Your task to perform on an android device: move a message to another label in the gmail app Image 0: 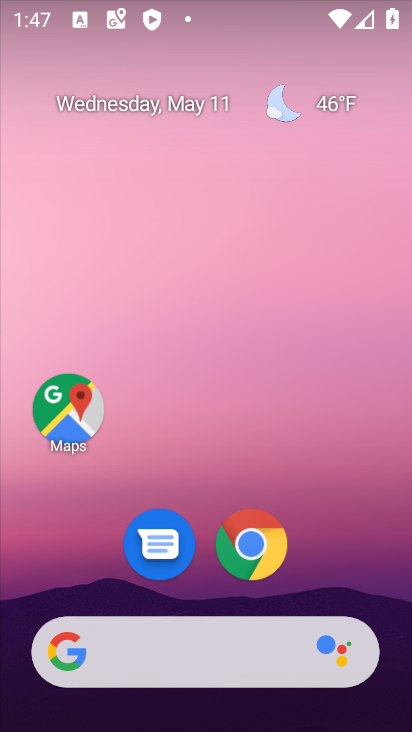
Step 0: drag from (391, 646) to (228, 40)
Your task to perform on an android device: move a message to another label in the gmail app Image 1: 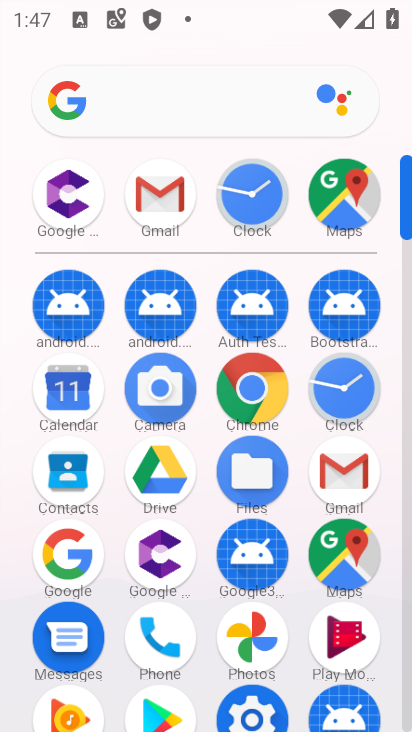
Step 1: click (407, 707)
Your task to perform on an android device: move a message to another label in the gmail app Image 2: 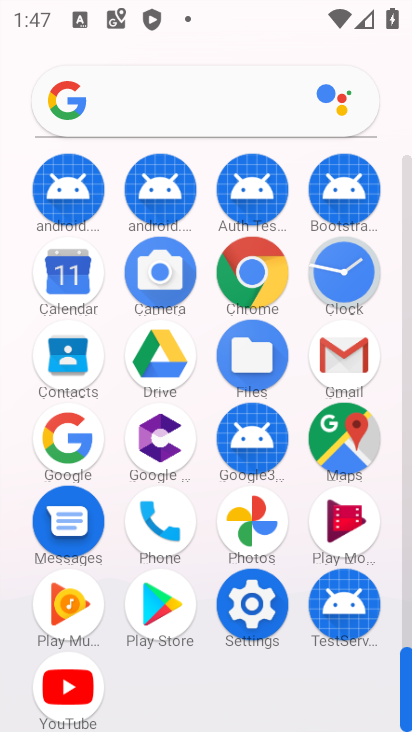
Step 2: click (341, 356)
Your task to perform on an android device: move a message to another label in the gmail app Image 3: 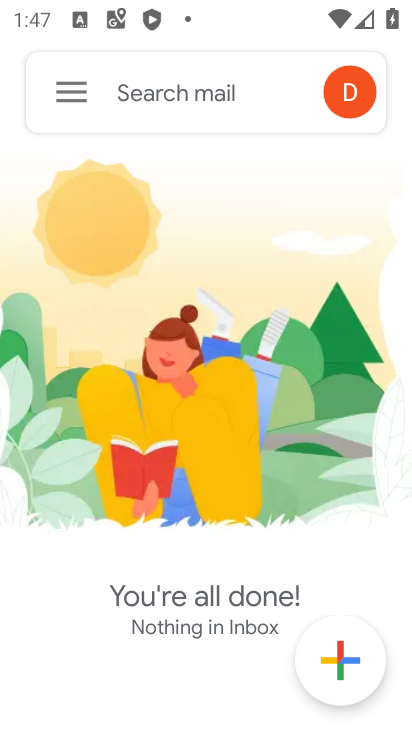
Step 3: click (65, 89)
Your task to perform on an android device: move a message to another label in the gmail app Image 4: 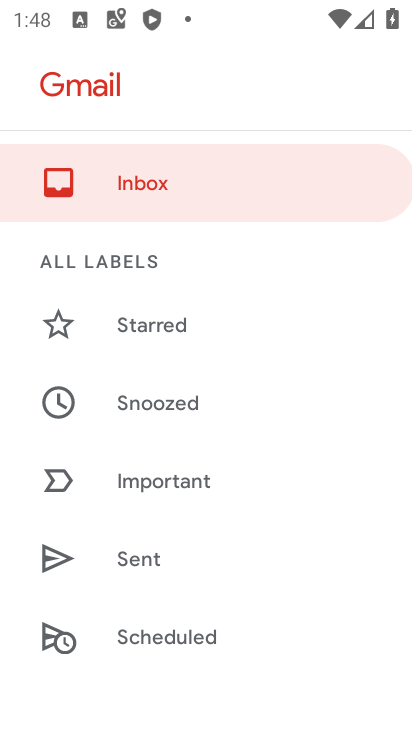
Step 4: drag from (280, 666) to (251, 218)
Your task to perform on an android device: move a message to another label in the gmail app Image 5: 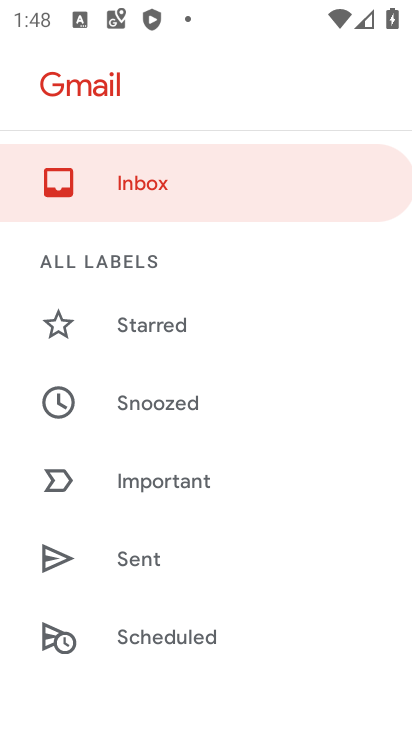
Step 5: drag from (278, 514) to (229, 105)
Your task to perform on an android device: move a message to another label in the gmail app Image 6: 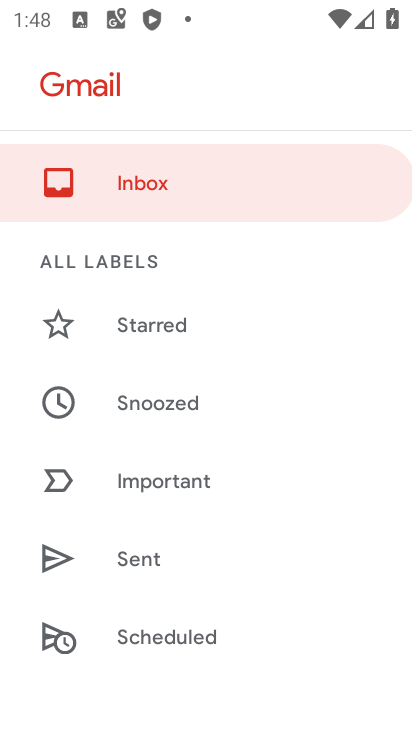
Step 6: drag from (263, 632) to (228, 252)
Your task to perform on an android device: move a message to another label in the gmail app Image 7: 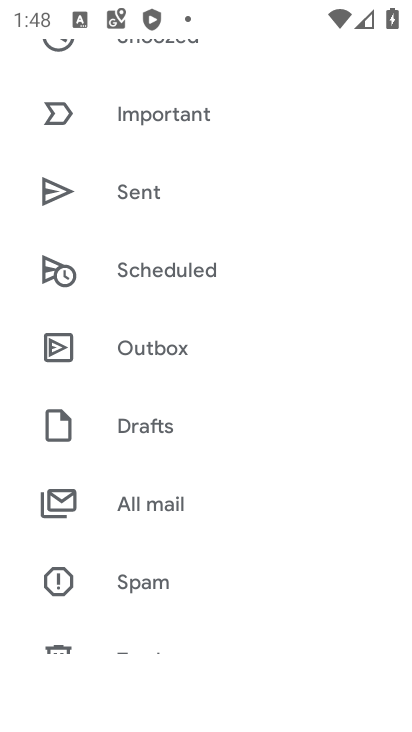
Step 7: click (153, 502)
Your task to perform on an android device: move a message to another label in the gmail app Image 8: 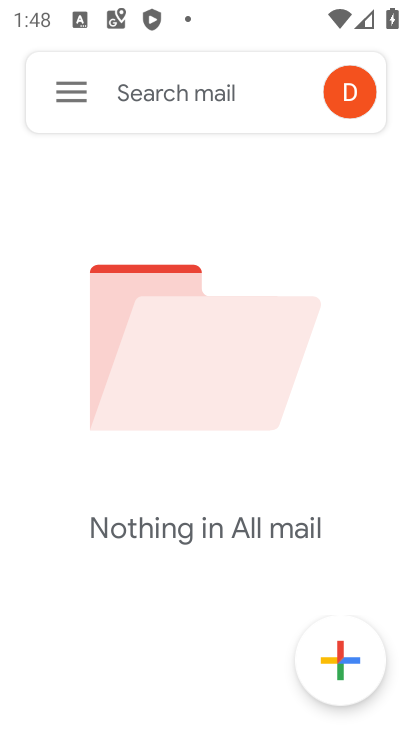
Step 8: task complete